Your task to perform on an android device: Go to privacy settings Image 0: 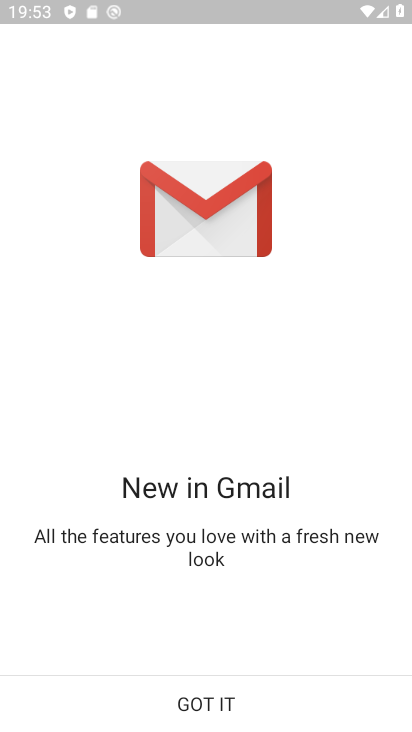
Step 0: press back button
Your task to perform on an android device: Go to privacy settings Image 1: 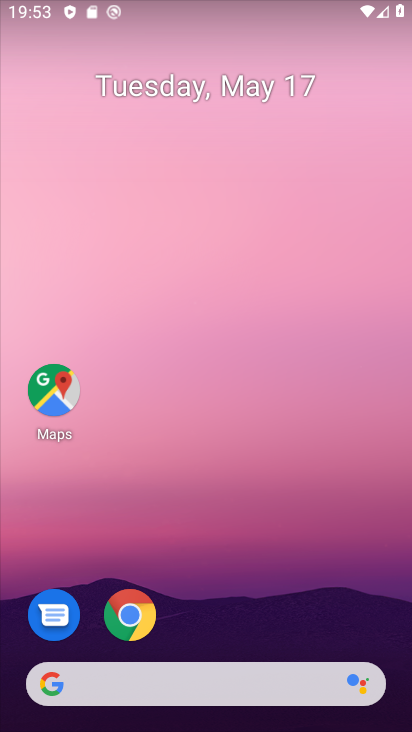
Step 1: drag from (220, 641) to (287, 9)
Your task to perform on an android device: Go to privacy settings Image 2: 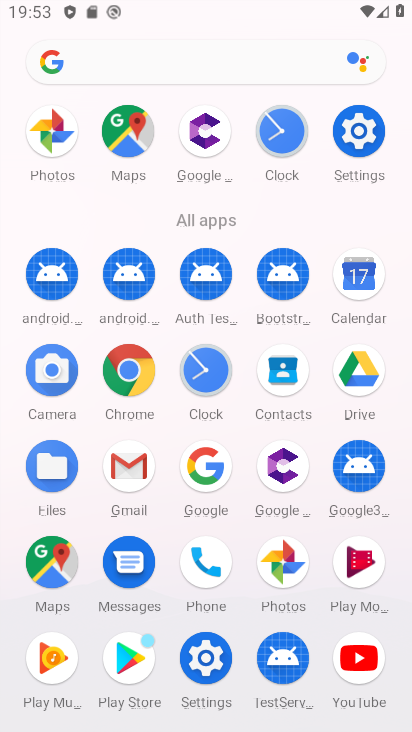
Step 2: click (369, 136)
Your task to perform on an android device: Go to privacy settings Image 3: 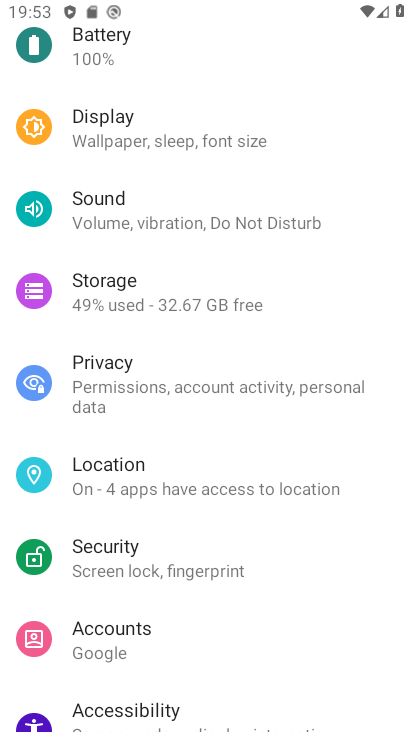
Step 3: click (121, 376)
Your task to perform on an android device: Go to privacy settings Image 4: 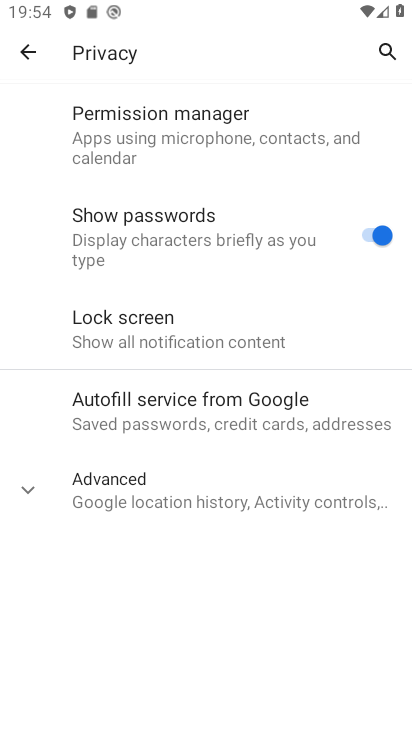
Step 4: task complete